Your task to perform on an android device: How much does a 3 bedroom apartment rent for in Miami? Image 0: 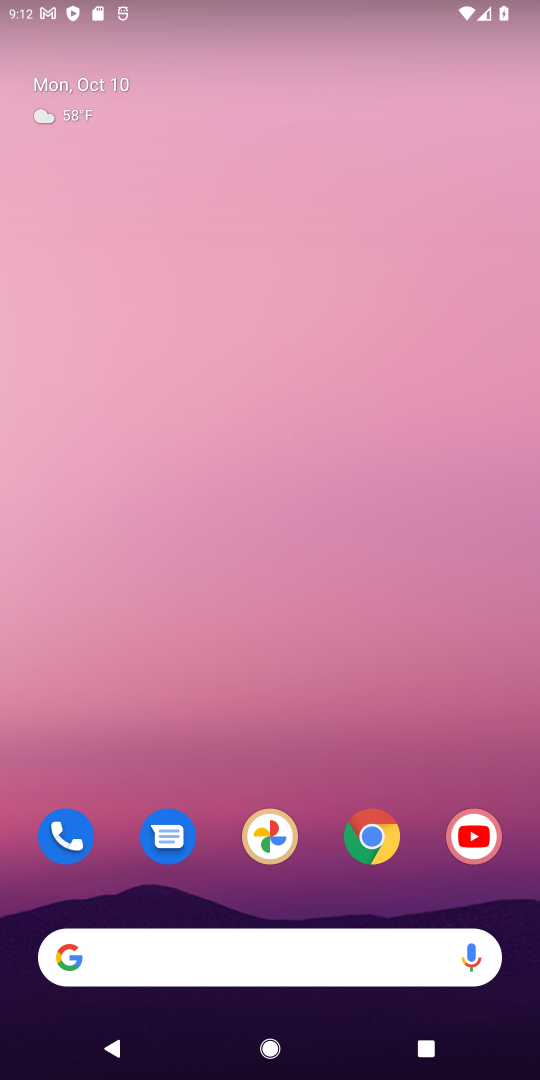
Step 0: drag from (157, 935) to (351, 109)
Your task to perform on an android device: How much does a 3 bedroom apartment rent for in Miami? Image 1: 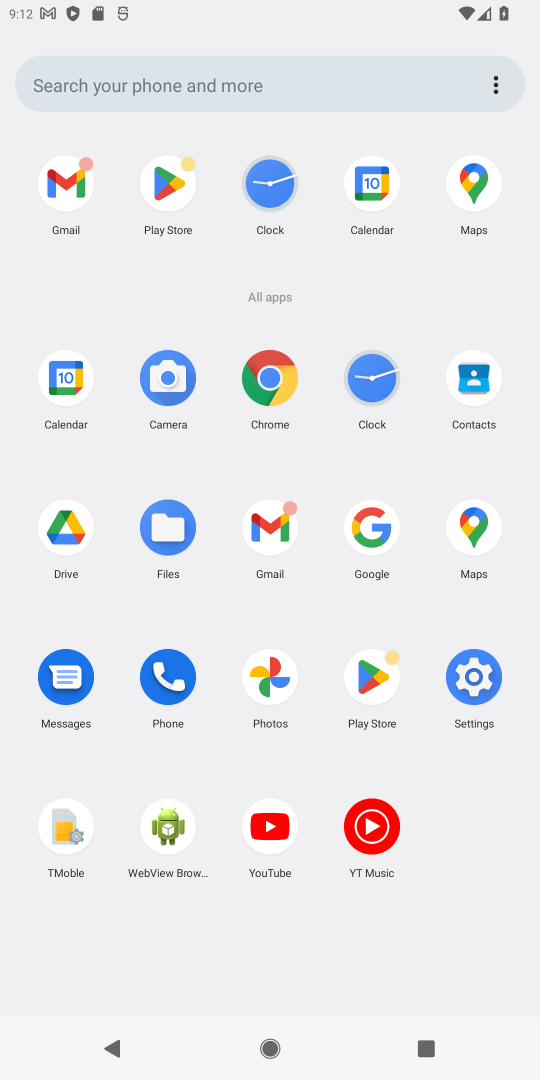
Step 1: click (358, 531)
Your task to perform on an android device: How much does a 3 bedroom apartment rent for in Miami? Image 2: 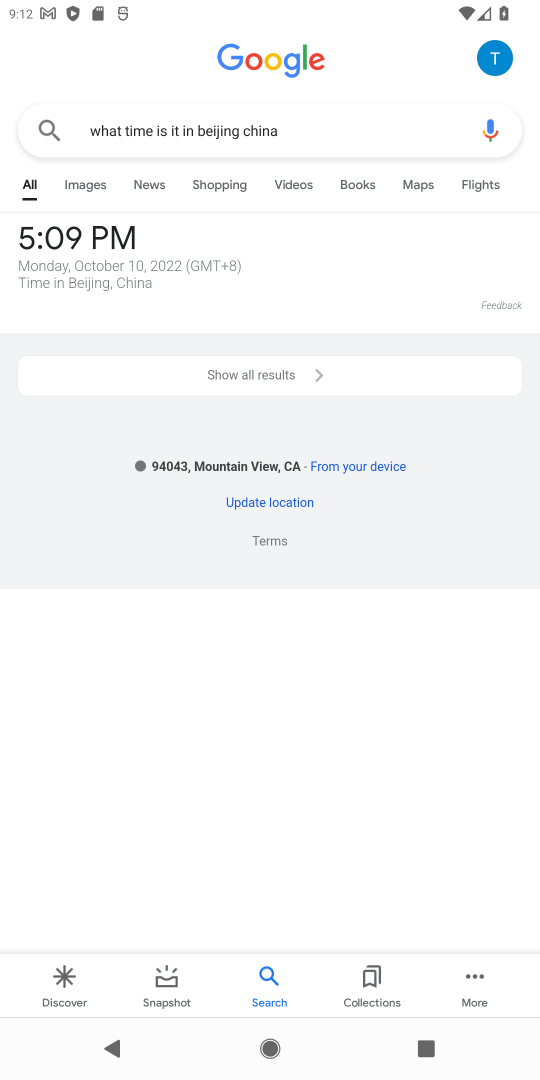
Step 2: click (195, 127)
Your task to perform on an android device: How much does a 3 bedroom apartment rent for in Miami? Image 3: 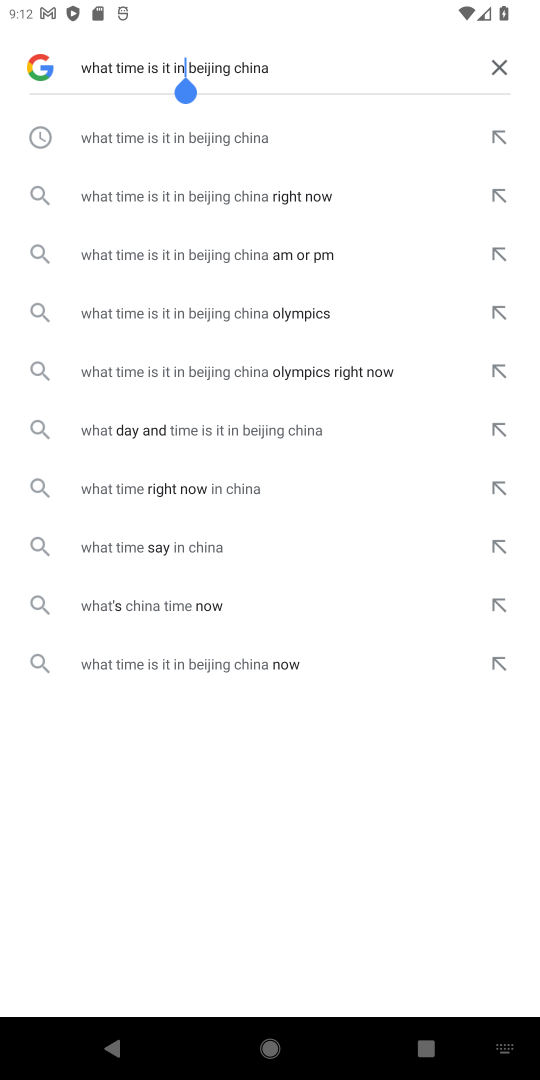
Step 3: click (498, 67)
Your task to perform on an android device: How much does a 3 bedroom apartment rent for in Miami? Image 4: 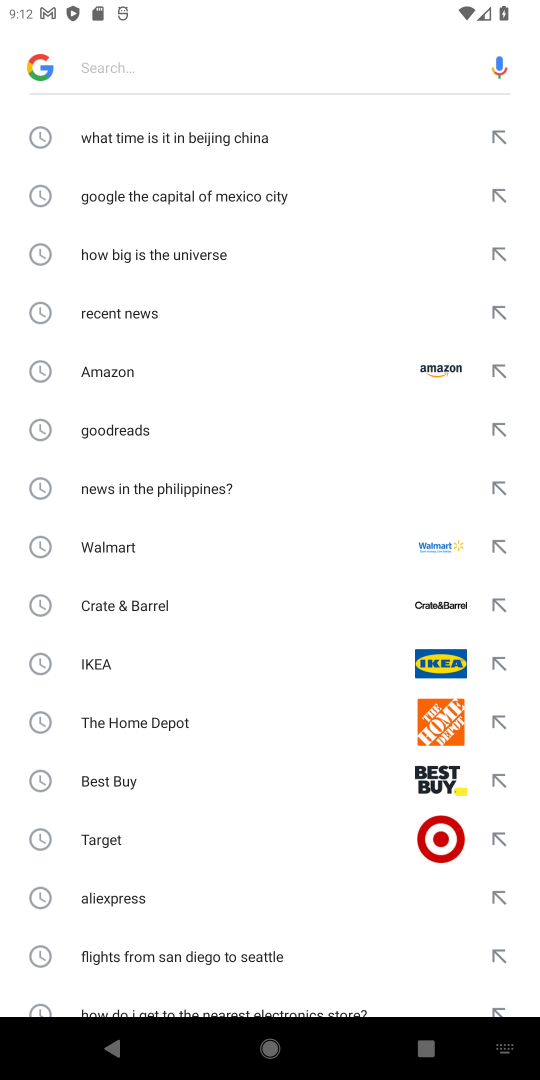
Step 4: type "How much does a 3 bedroom apartment rent for in Miami?"
Your task to perform on an android device: How much does a 3 bedroom apartment rent for in Miami? Image 5: 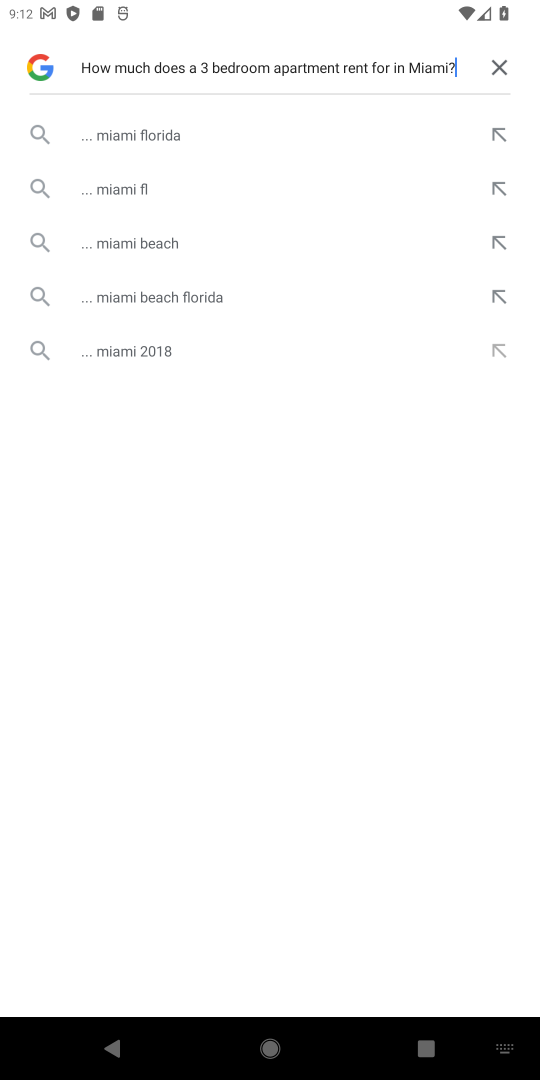
Step 5: click (144, 137)
Your task to perform on an android device: How much does a 3 bedroom apartment rent for in Miami? Image 6: 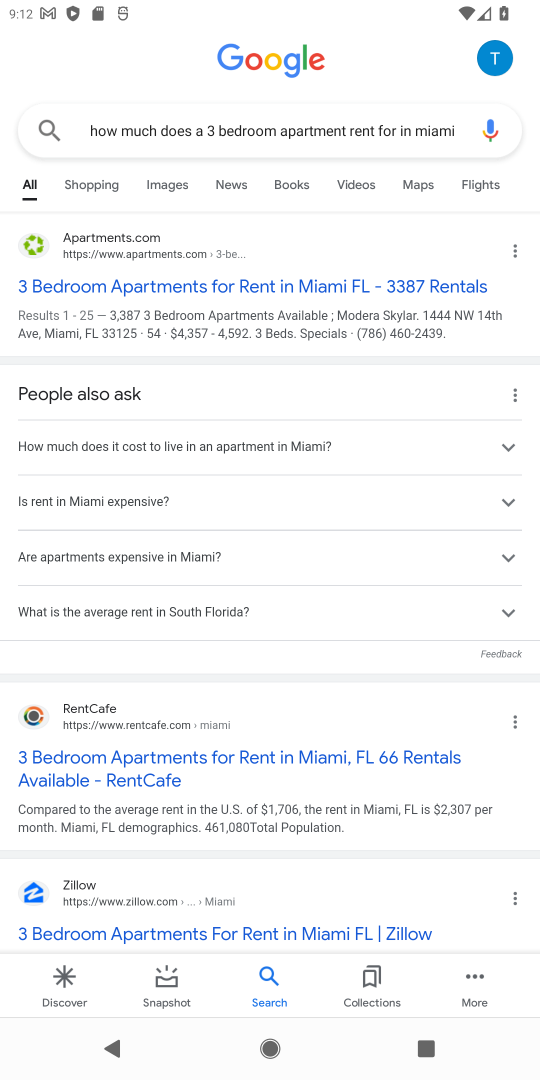
Step 6: click (154, 291)
Your task to perform on an android device: How much does a 3 bedroom apartment rent for in Miami? Image 7: 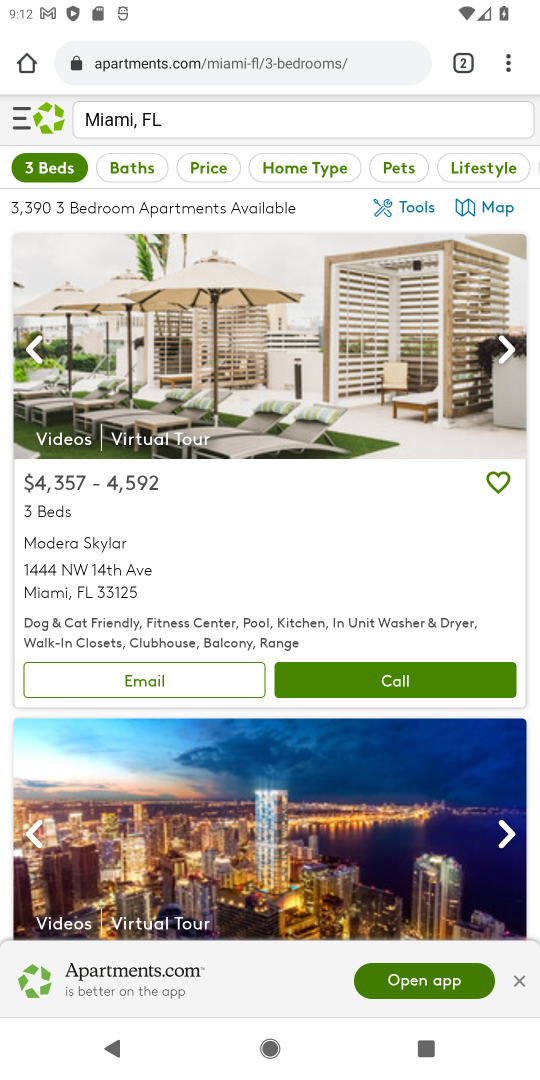
Step 7: task complete